Your task to perform on an android device: Open calendar and show me the fourth week of next month Image 0: 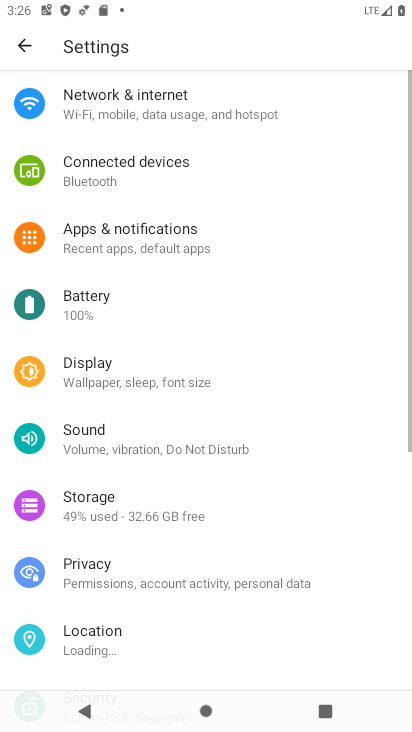
Step 0: press back button
Your task to perform on an android device: Open calendar and show me the fourth week of next month Image 1: 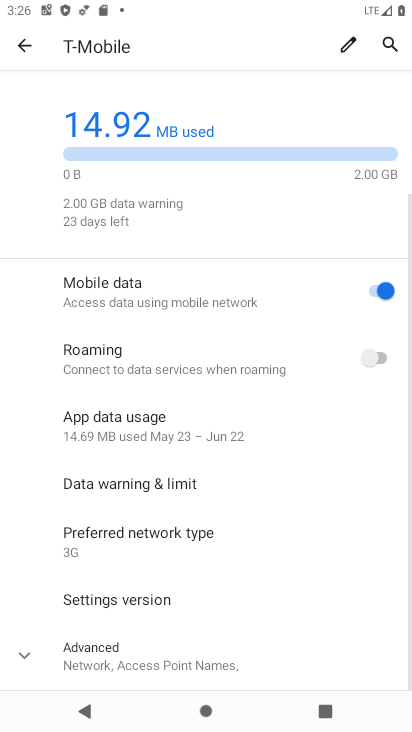
Step 1: press home button
Your task to perform on an android device: Open calendar and show me the fourth week of next month Image 2: 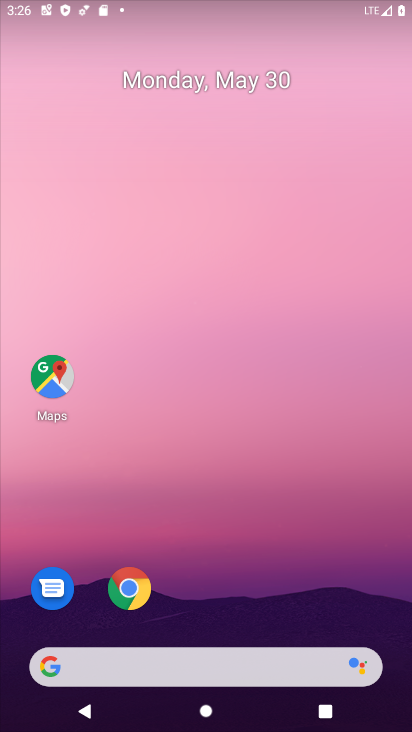
Step 2: drag from (290, 580) to (240, 21)
Your task to perform on an android device: Open calendar and show me the fourth week of next month Image 3: 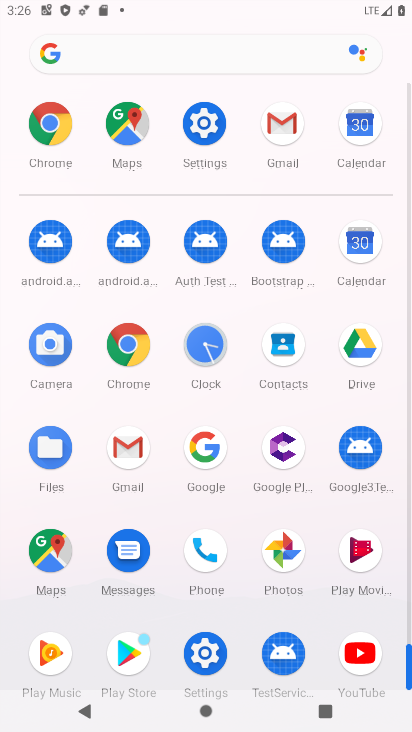
Step 3: drag from (12, 522) to (17, 230)
Your task to perform on an android device: Open calendar and show me the fourth week of next month Image 4: 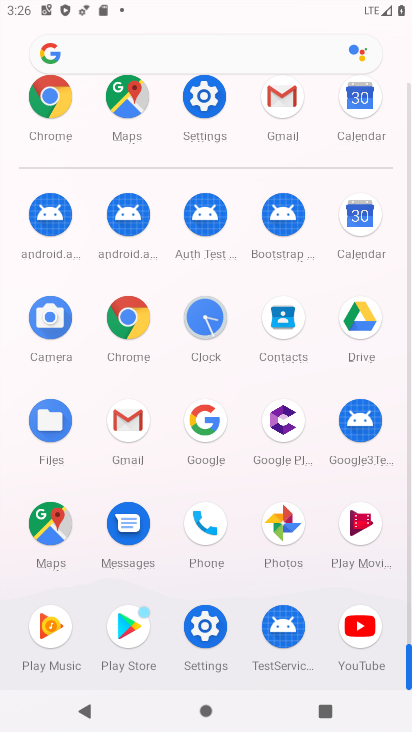
Step 4: click (357, 214)
Your task to perform on an android device: Open calendar and show me the fourth week of next month Image 5: 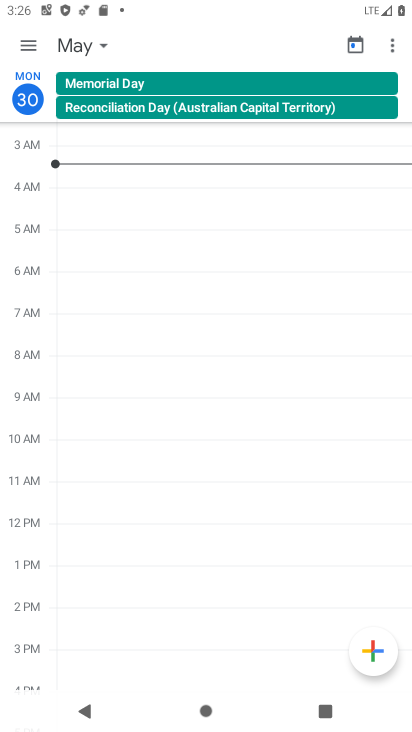
Step 5: click (81, 36)
Your task to perform on an android device: Open calendar and show me the fourth week of next month Image 6: 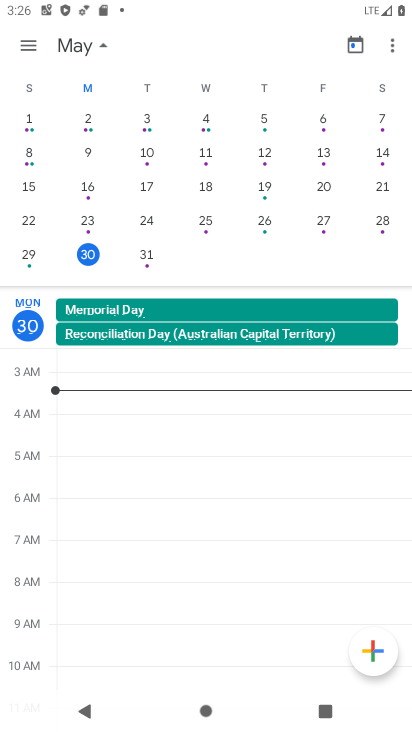
Step 6: drag from (352, 155) to (13, 144)
Your task to perform on an android device: Open calendar and show me the fourth week of next month Image 7: 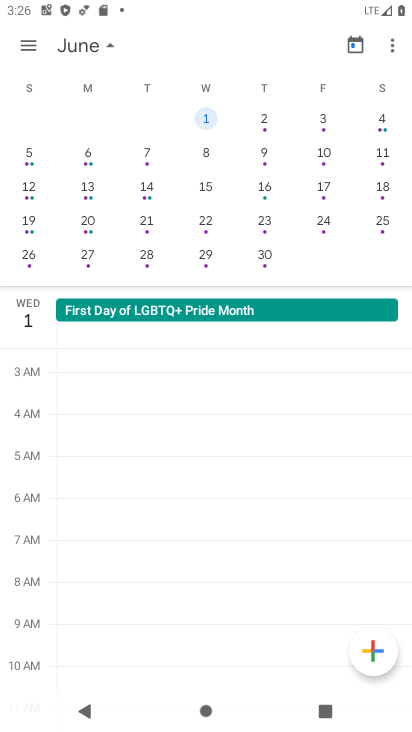
Step 7: click (27, 207)
Your task to perform on an android device: Open calendar and show me the fourth week of next month Image 8: 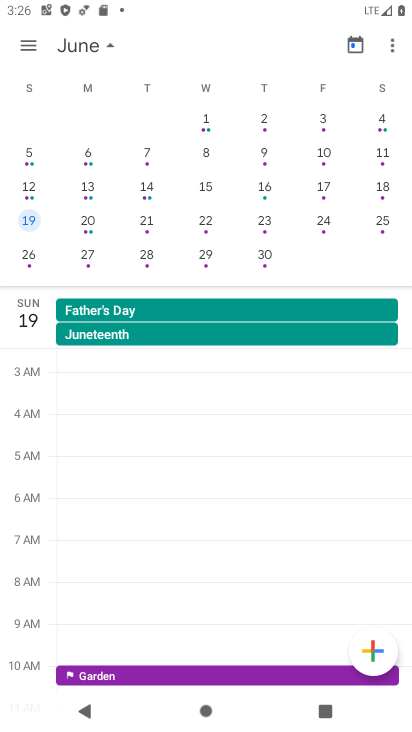
Step 8: click (31, 42)
Your task to perform on an android device: Open calendar and show me the fourth week of next month Image 9: 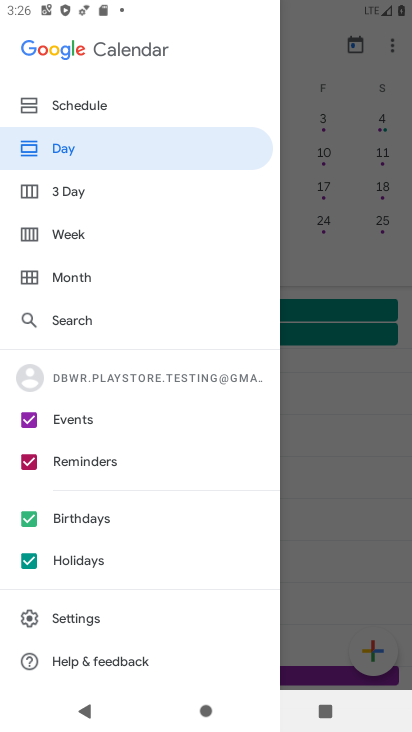
Step 9: click (78, 241)
Your task to perform on an android device: Open calendar and show me the fourth week of next month Image 10: 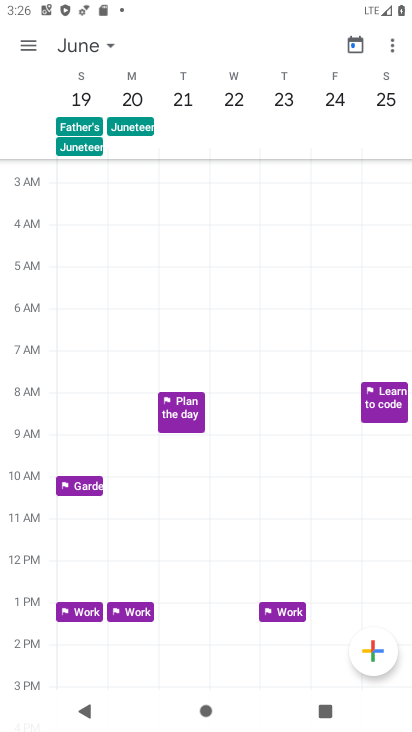
Step 10: task complete